Your task to perform on an android device: Show the shopping cart on amazon.com. Add logitech g pro to the cart on amazon.com Image 0: 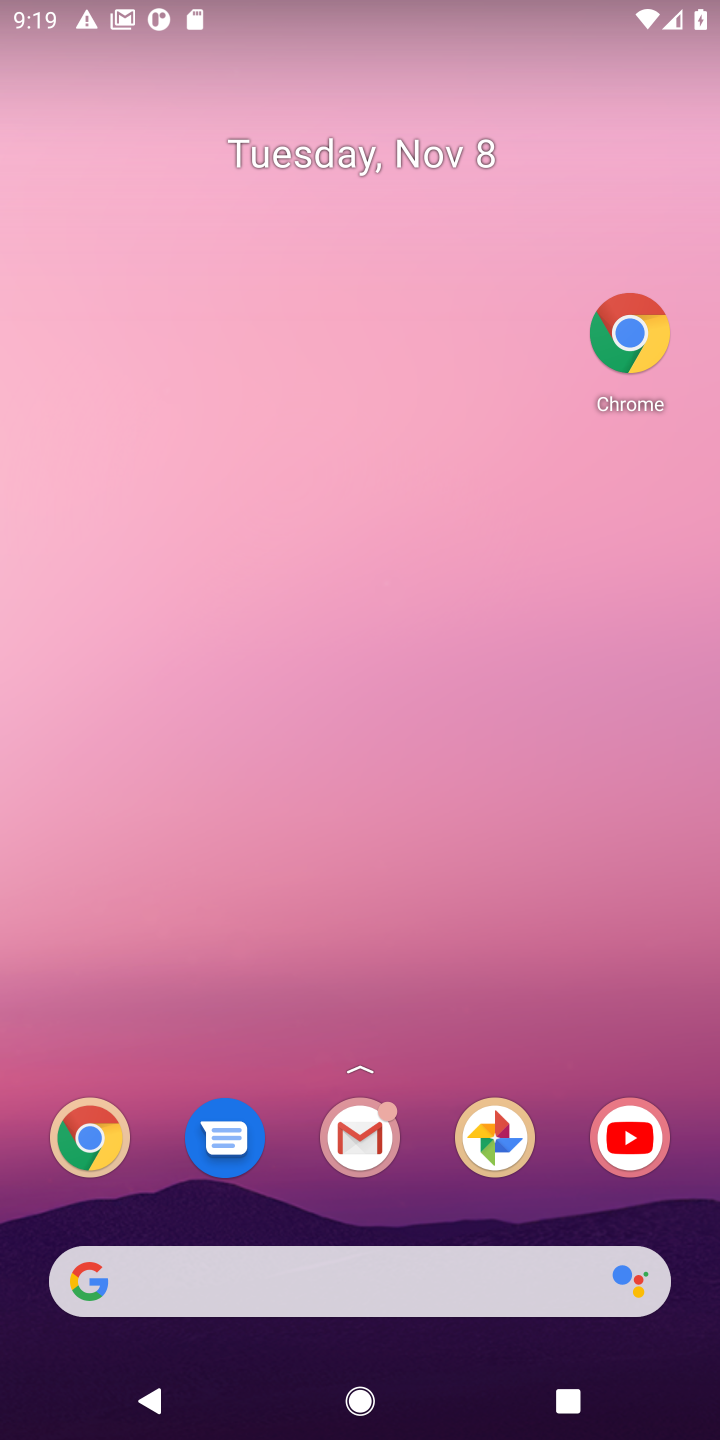
Step 0: drag from (232, 1089) to (310, 65)
Your task to perform on an android device: Show the shopping cart on amazon.com. Add logitech g pro to the cart on amazon.com Image 1: 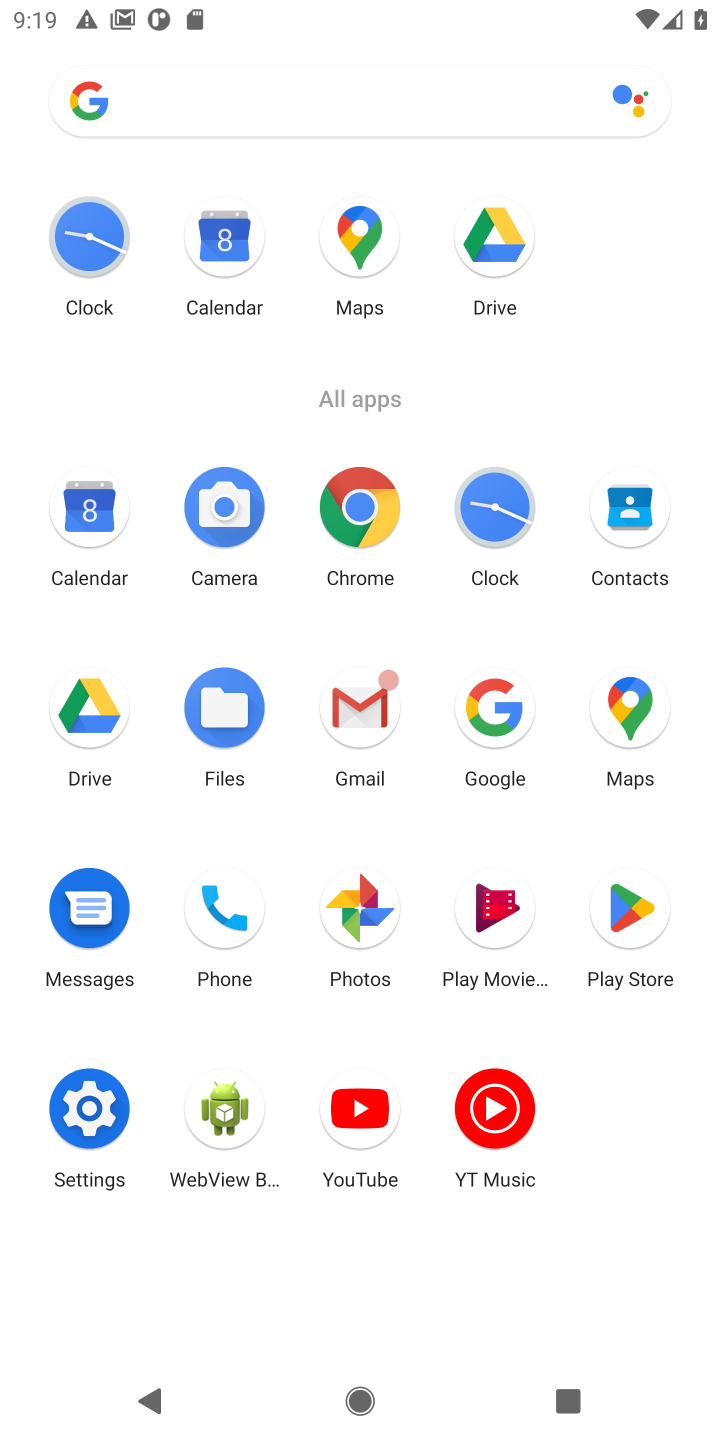
Step 1: click (368, 504)
Your task to perform on an android device: Show the shopping cart on amazon.com. Add logitech g pro to the cart on amazon.com Image 2: 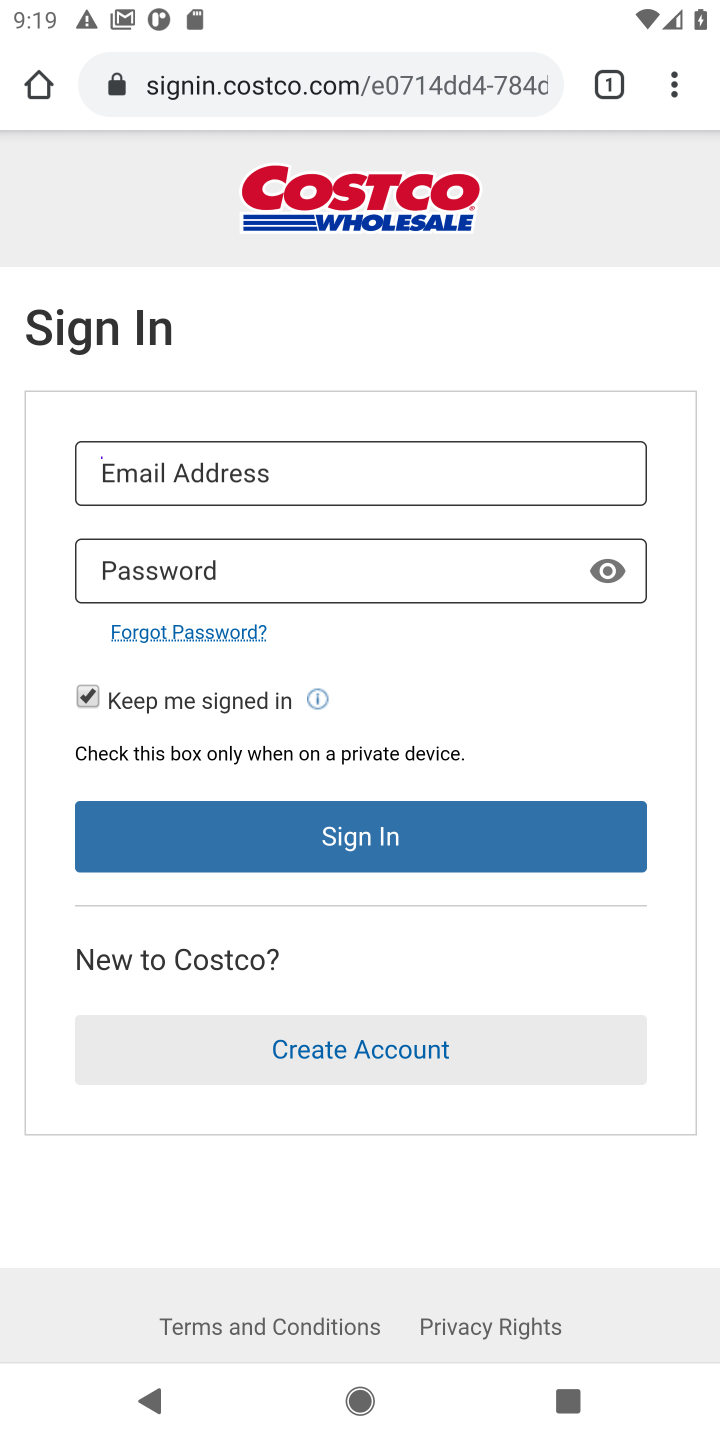
Step 2: click (380, 102)
Your task to perform on an android device: Show the shopping cart on amazon.com. Add logitech g pro to the cart on amazon.com Image 3: 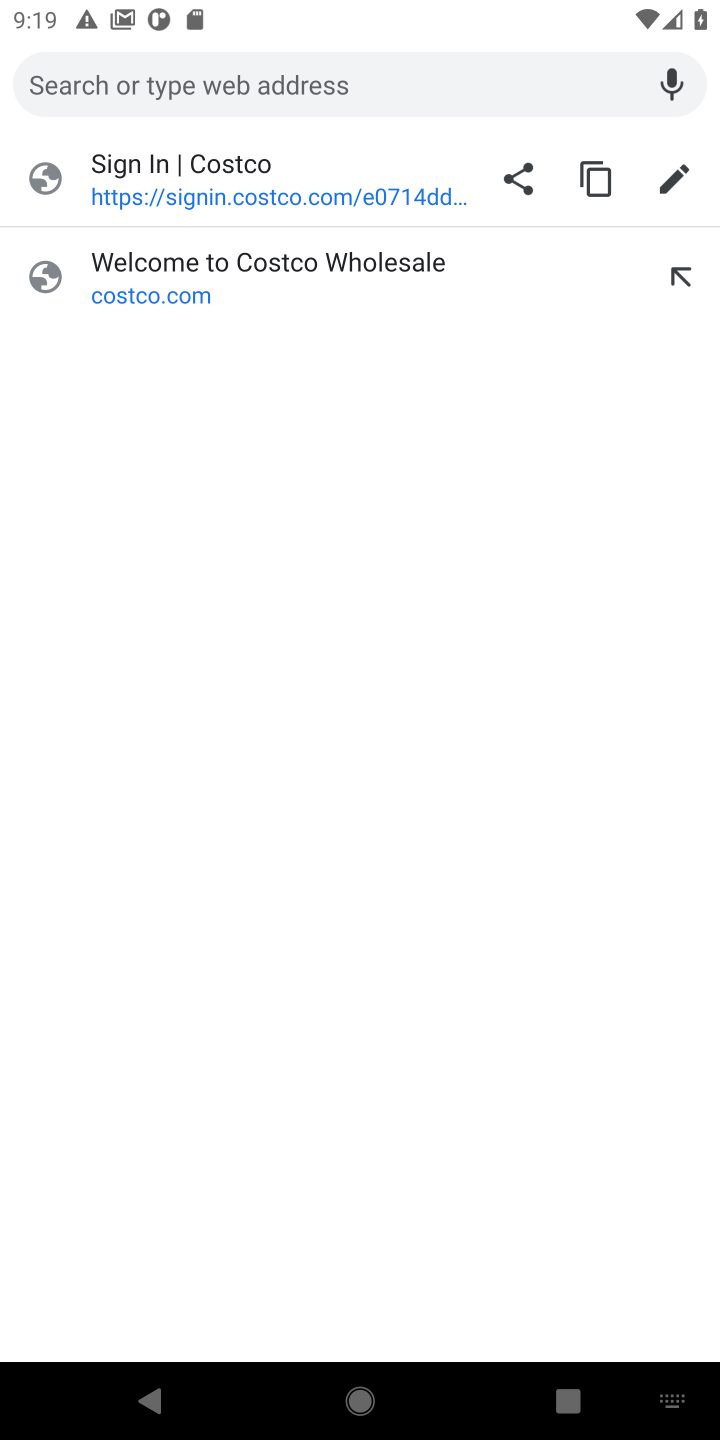
Step 3: type "amazon.com"
Your task to perform on an android device: Show the shopping cart on amazon.com. Add logitech g pro to the cart on amazon.com Image 4: 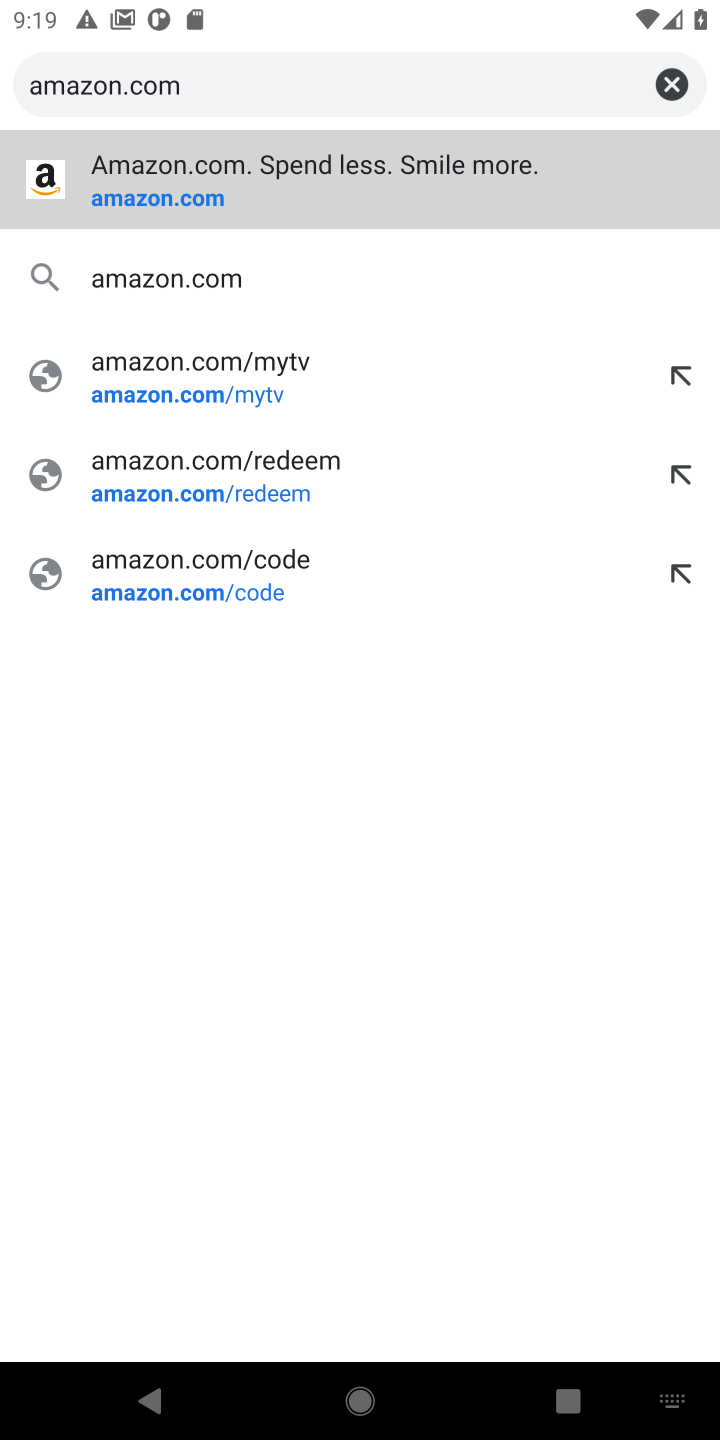
Step 4: press enter
Your task to perform on an android device: Show the shopping cart on amazon.com. Add logitech g pro to the cart on amazon.com Image 5: 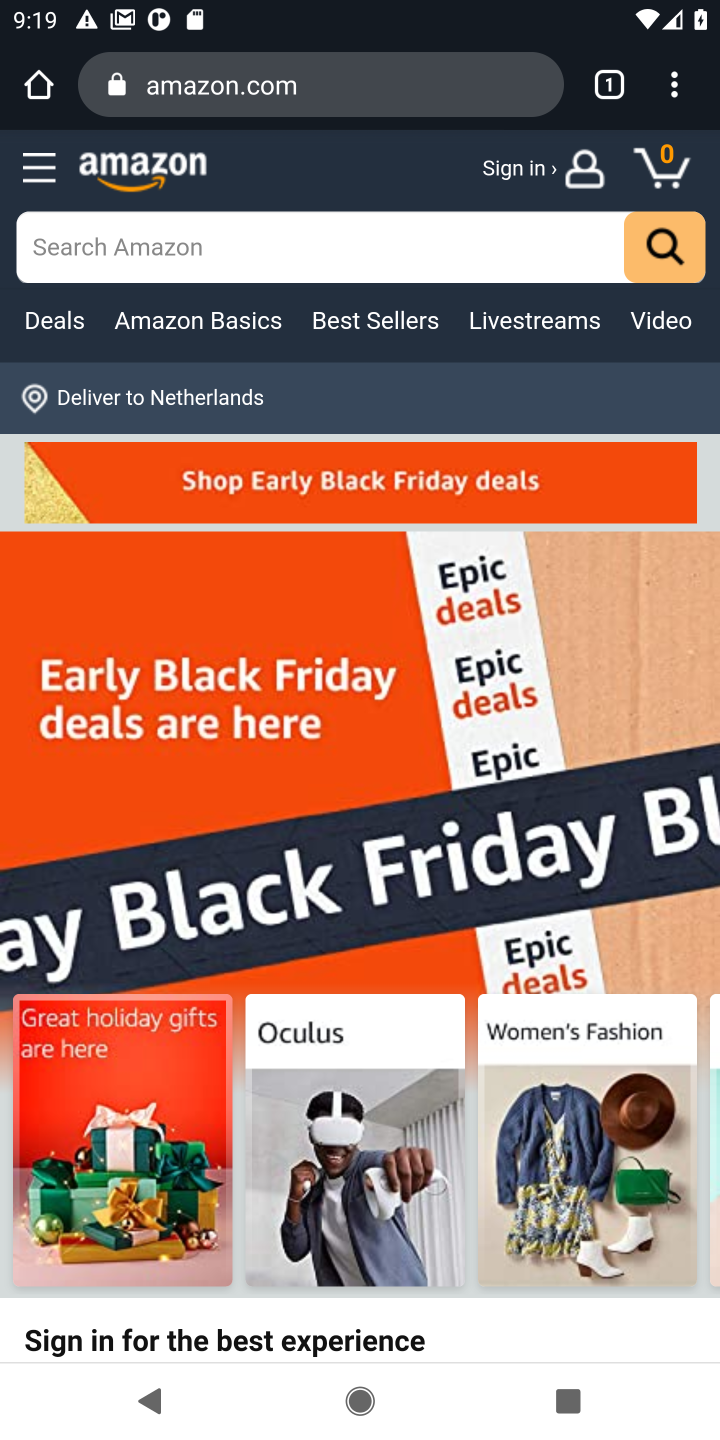
Step 5: click (469, 249)
Your task to perform on an android device: Show the shopping cart on amazon.com. Add logitech g pro to the cart on amazon.com Image 6: 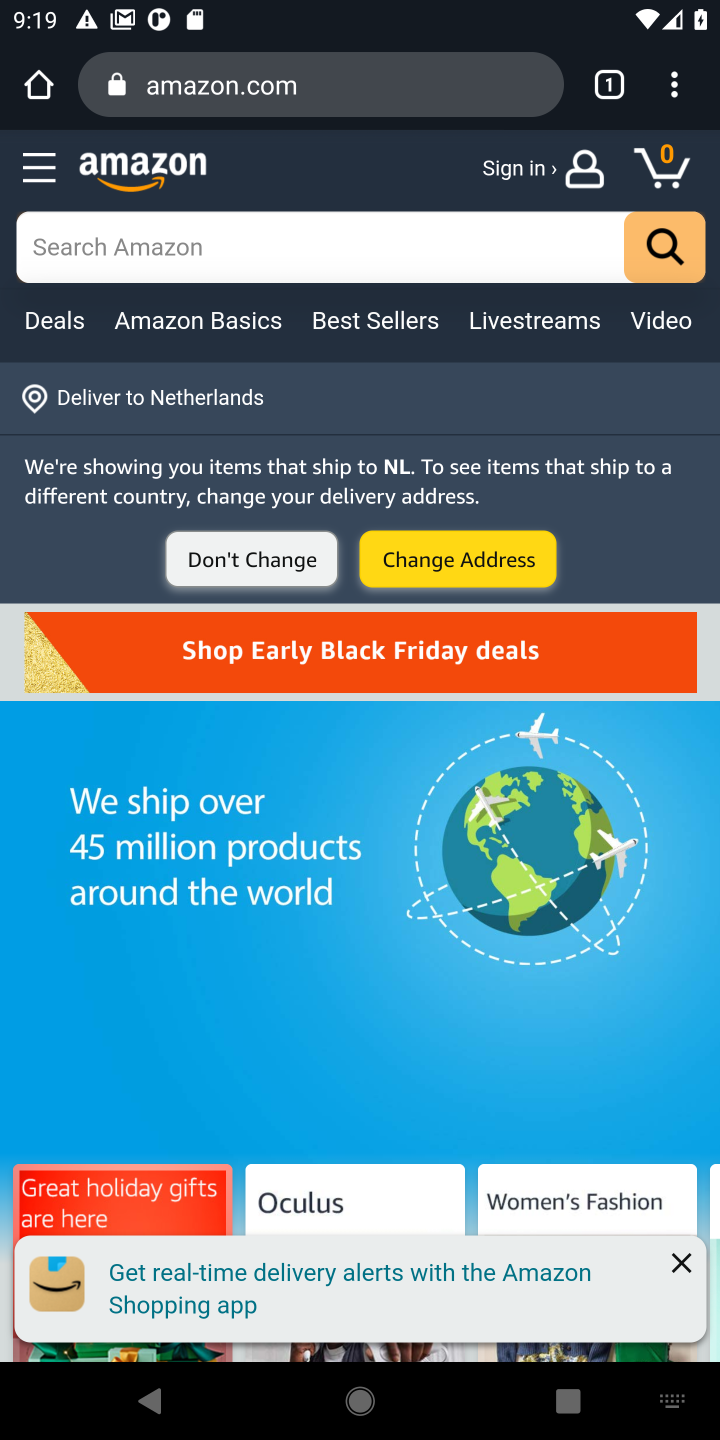
Step 6: press enter
Your task to perform on an android device: Show the shopping cart on amazon.com. Add logitech g pro to the cart on amazon.com Image 7: 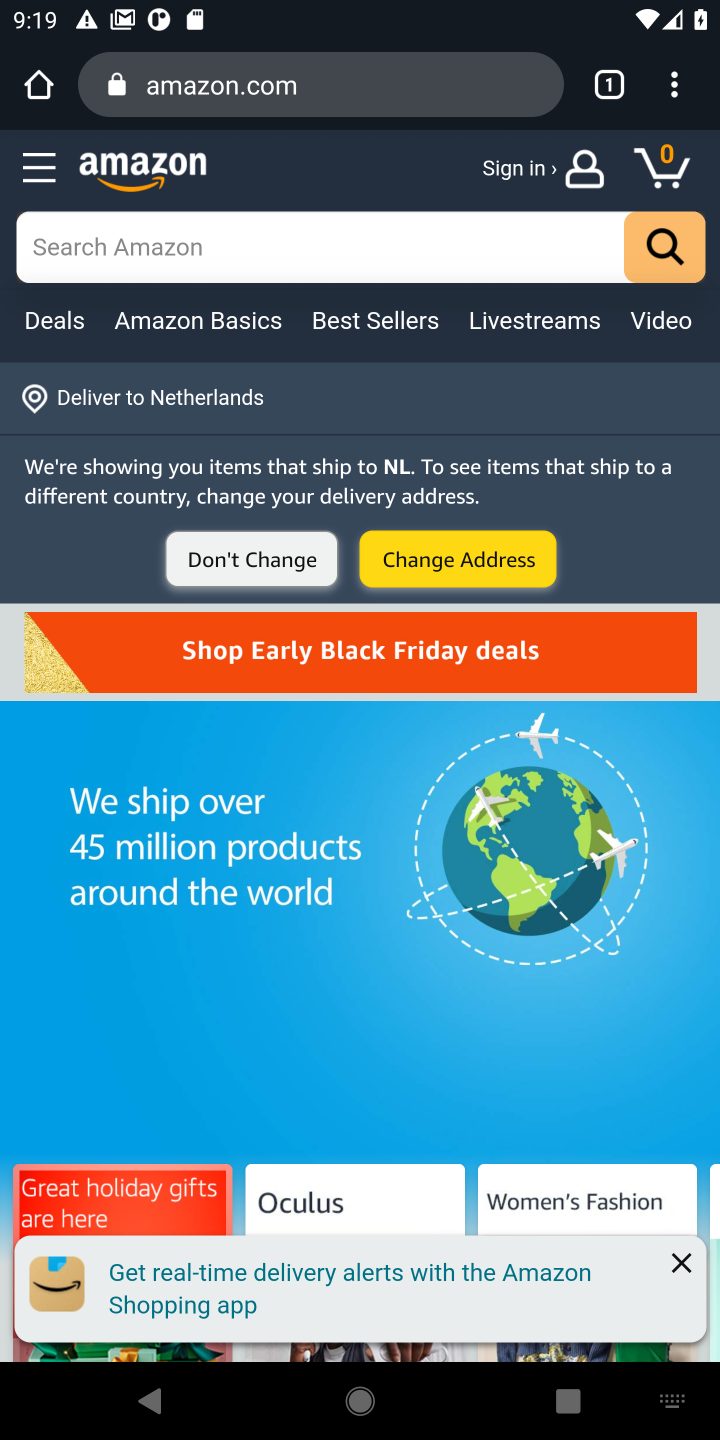
Step 7: type "logitech g pro"
Your task to perform on an android device: Show the shopping cart on amazon.com. Add logitech g pro to the cart on amazon.com Image 8: 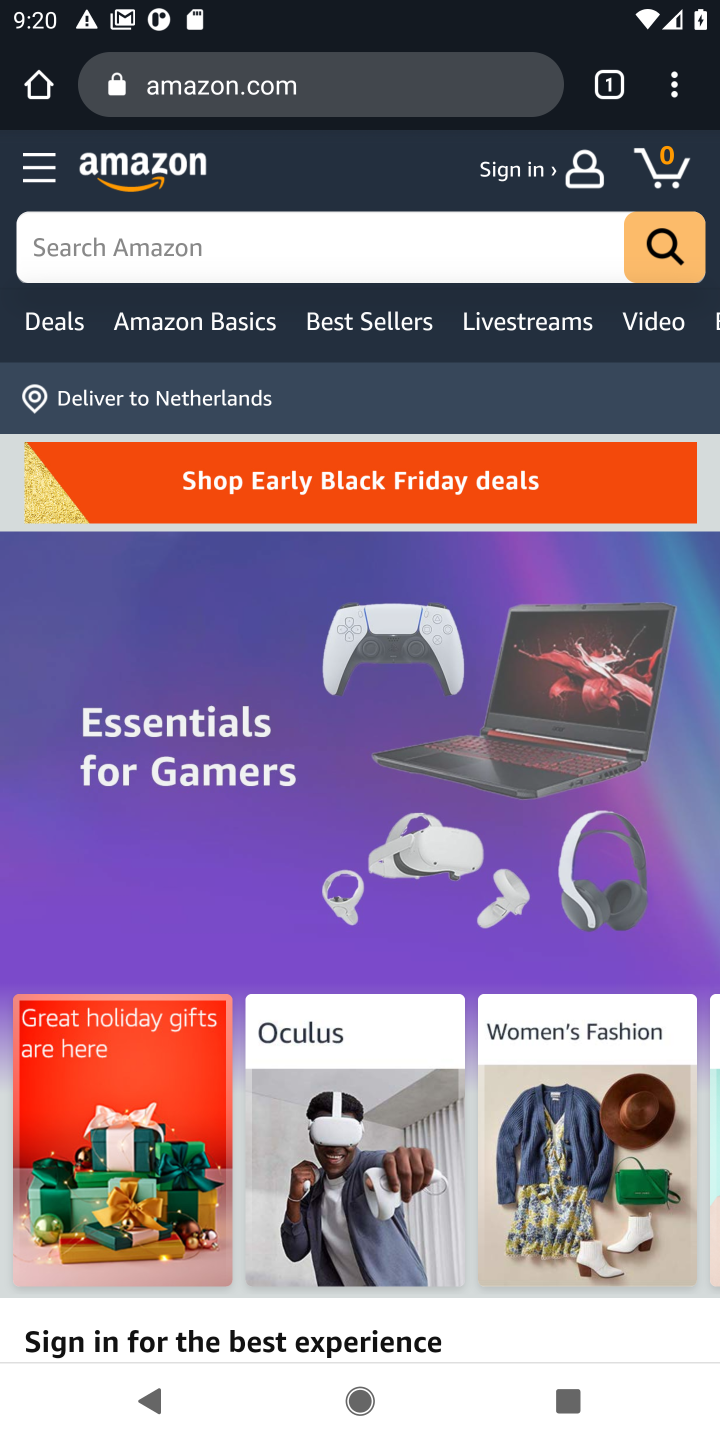
Step 8: click (355, 254)
Your task to perform on an android device: Show the shopping cart on amazon.com. Add logitech g pro to the cart on amazon.com Image 9: 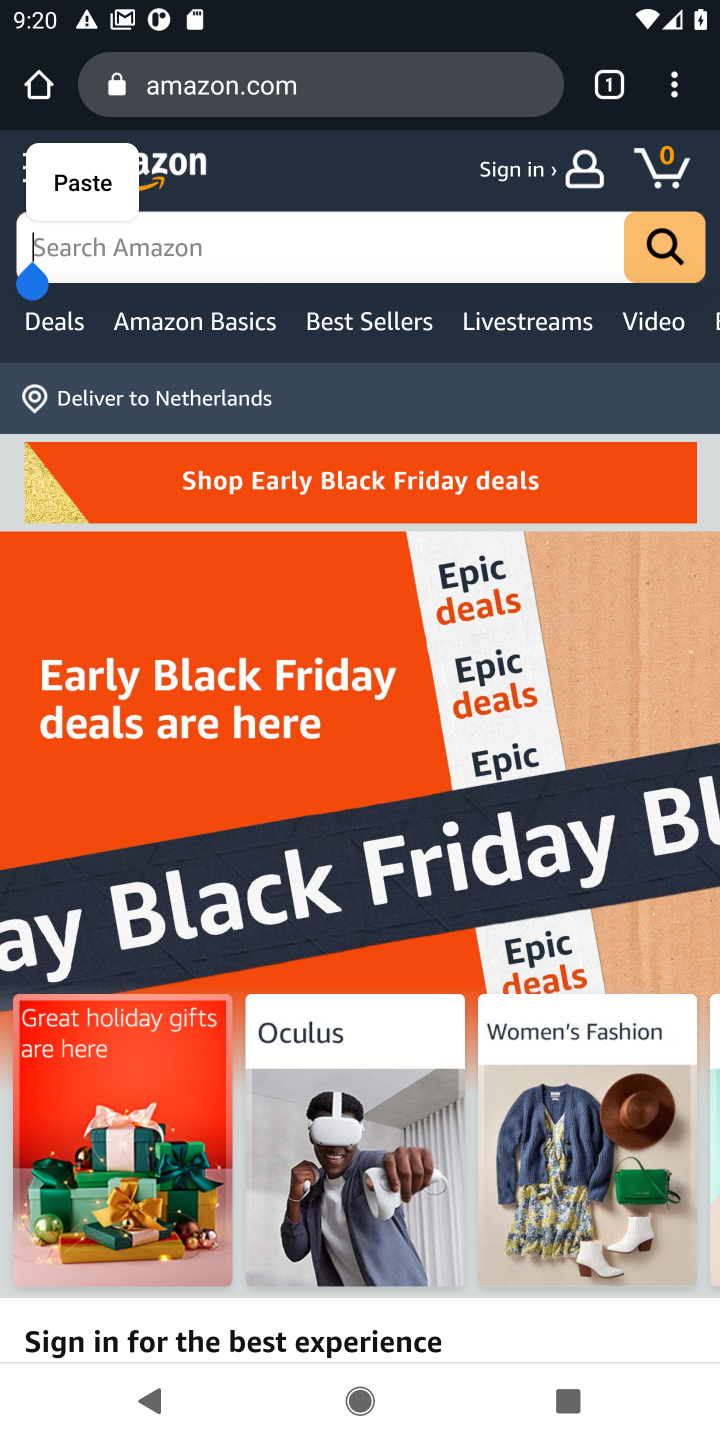
Step 9: type "Add logitech g pro"
Your task to perform on an android device: Show the shopping cart on amazon.com. Add logitech g pro to the cart on amazon.com Image 10: 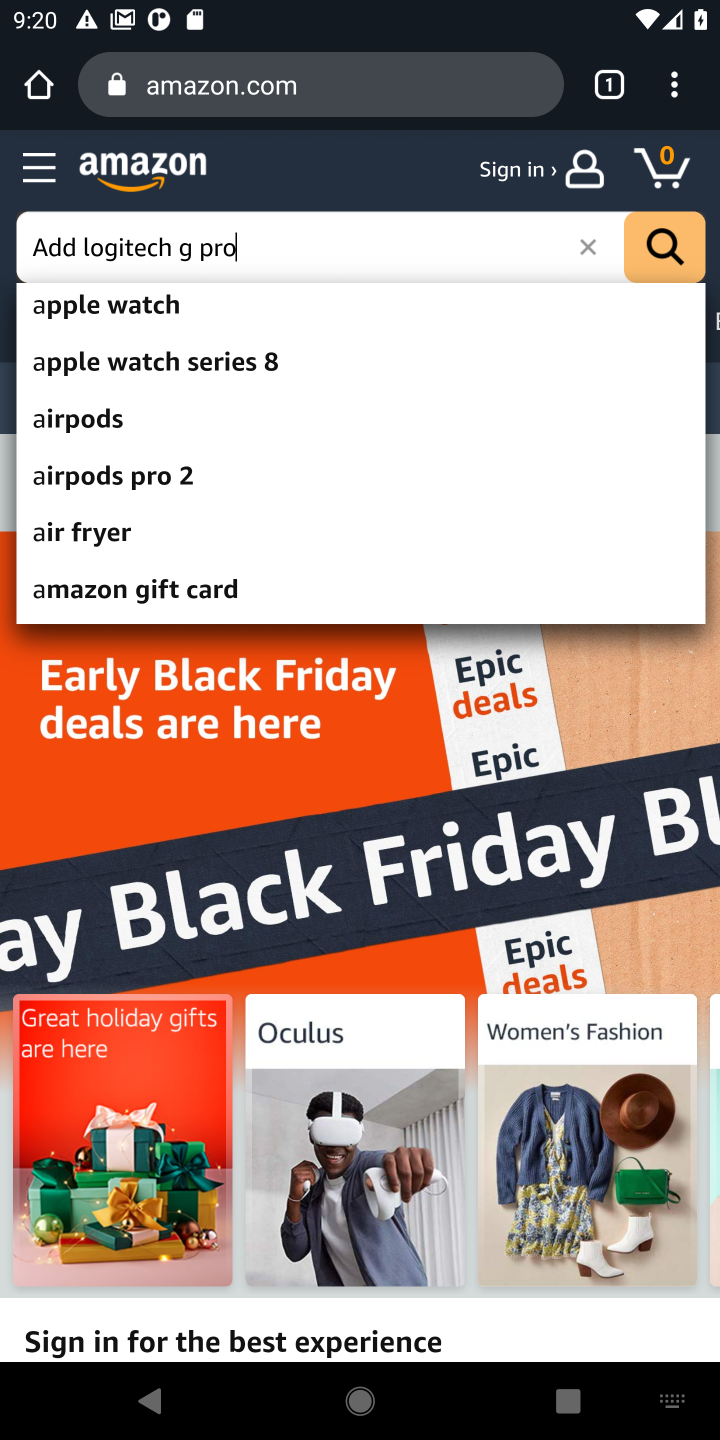
Step 10: press enter
Your task to perform on an android device: Show the shopping cart on amazon.com. Add logitech g pro to the cart on amazon.com Image 11: 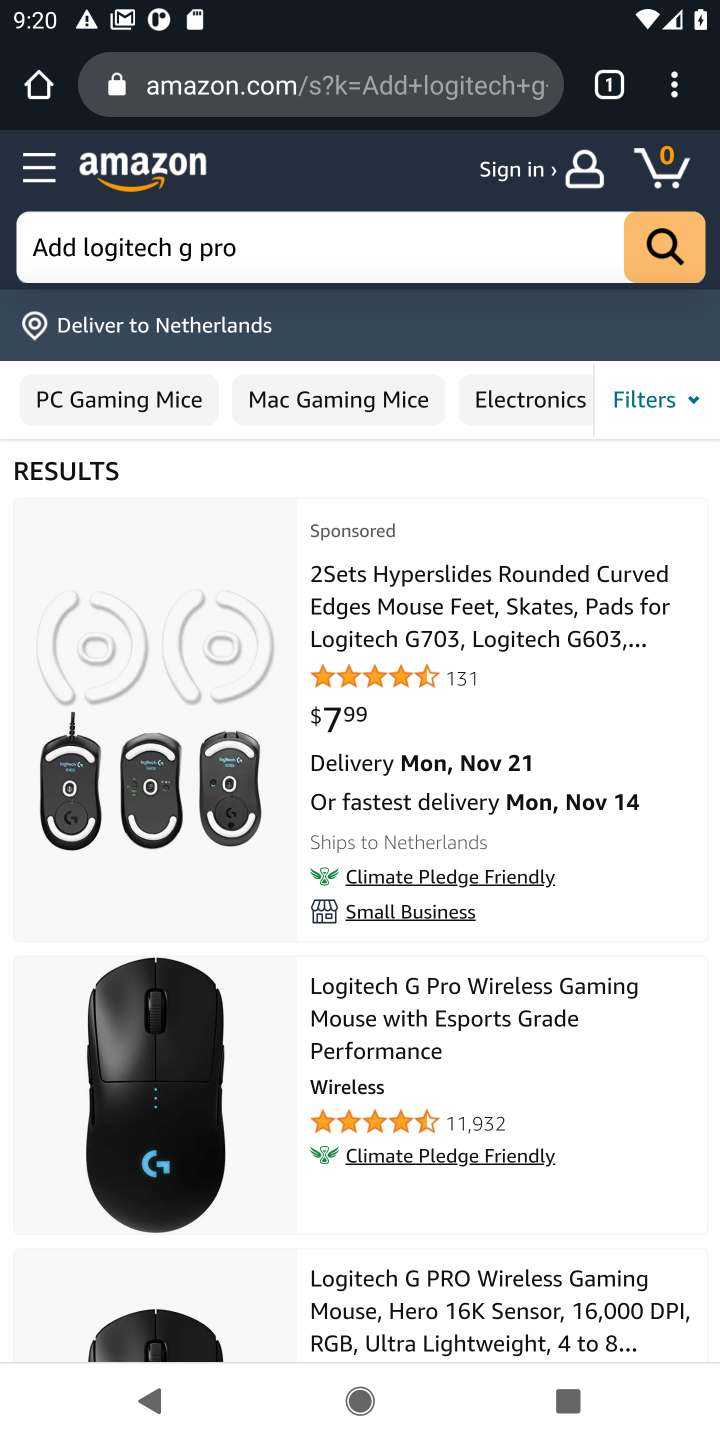
Step 11: click (395, 609)
Your task to perform on an android device: Show the shopping cart on amazon.com. Add logitech g pro to the cart on amazon.com Image 12: 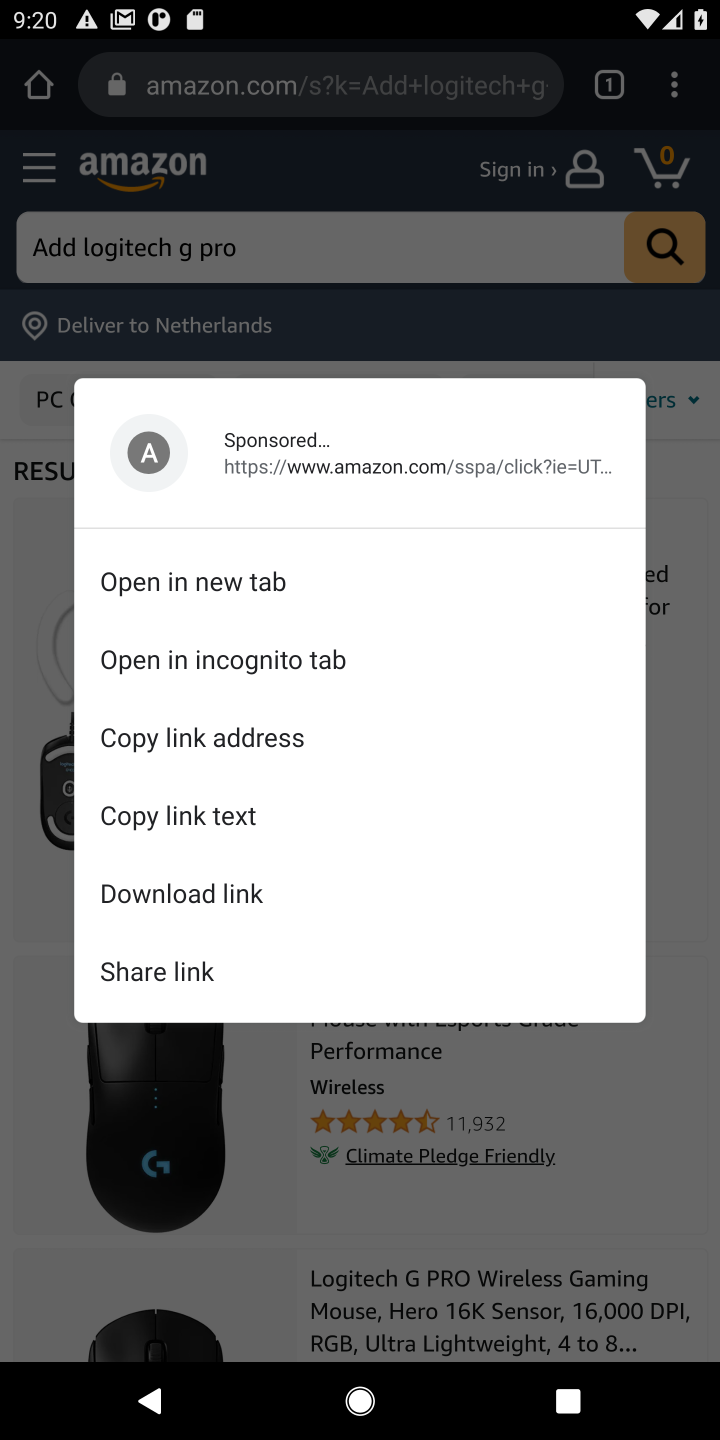
Step 12: click (292, 1109)
Your task to perform on an android device: Show the shopping cart on amazon.com. Add logitech g pro to the cart on amazon.com Image 13: 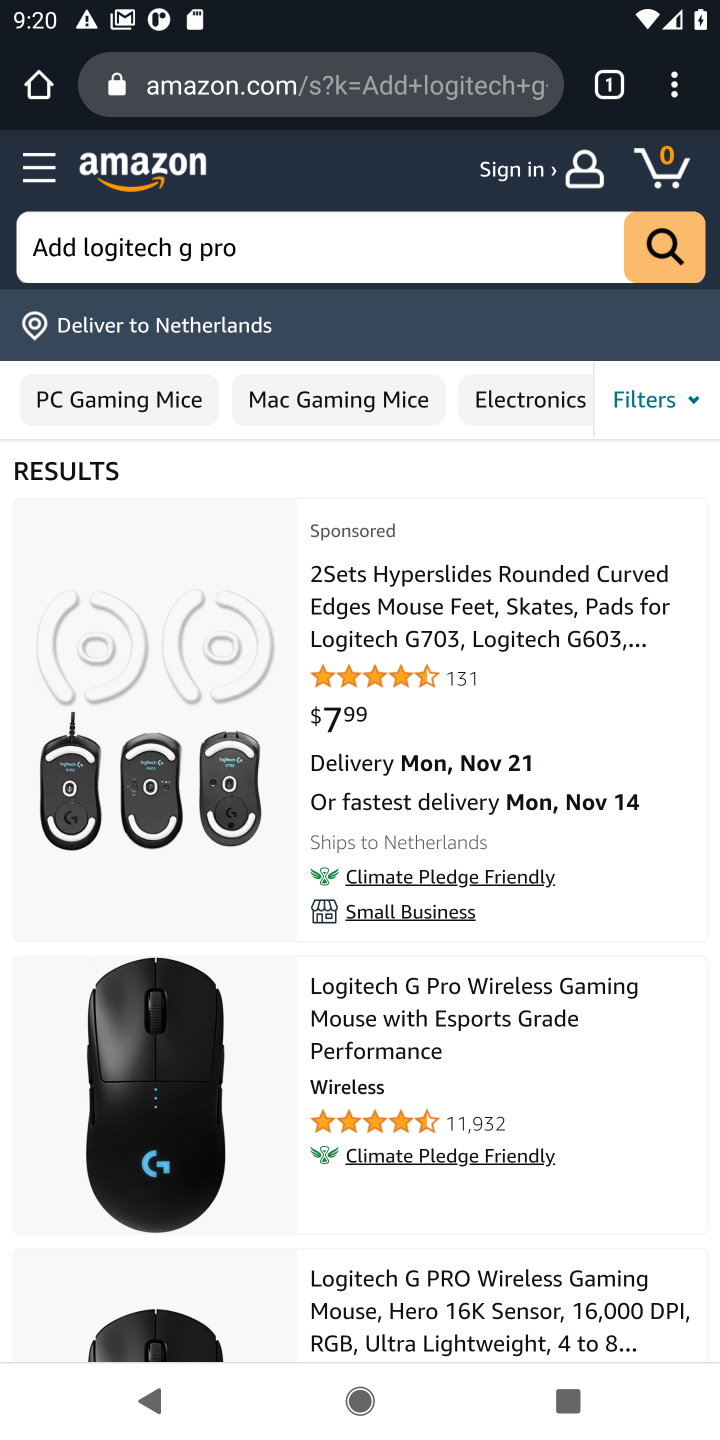
Step 13: click (405, 591)
Your task to perform on an android device: Show the shopping cart on amazon.com. Add logitech g pro to the cart on amazon.com Image 14: 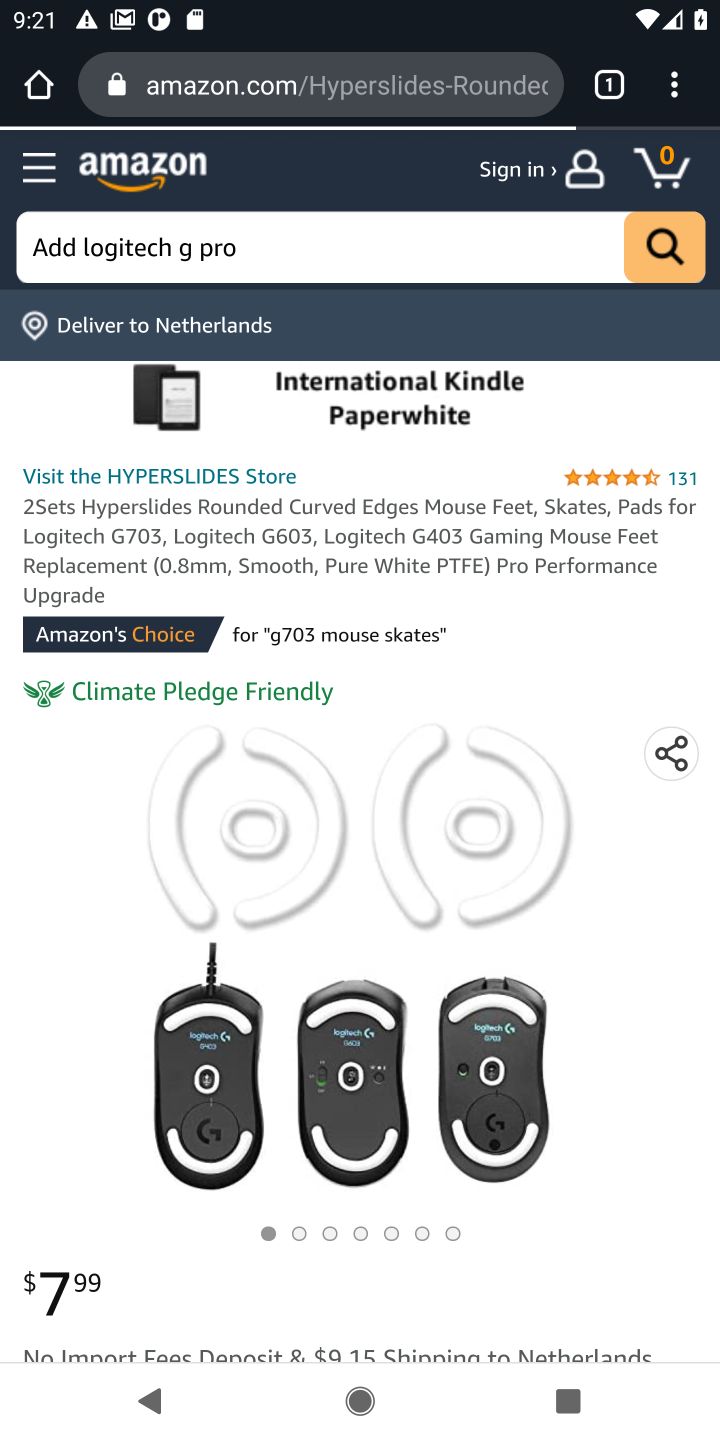
Step 14: drag from (409, 713) to (403, 522)
Your task to perform on an android device: Show the shopping cart on amazon.com. Add logitech g pro to the cart on amazon.com Image 15: 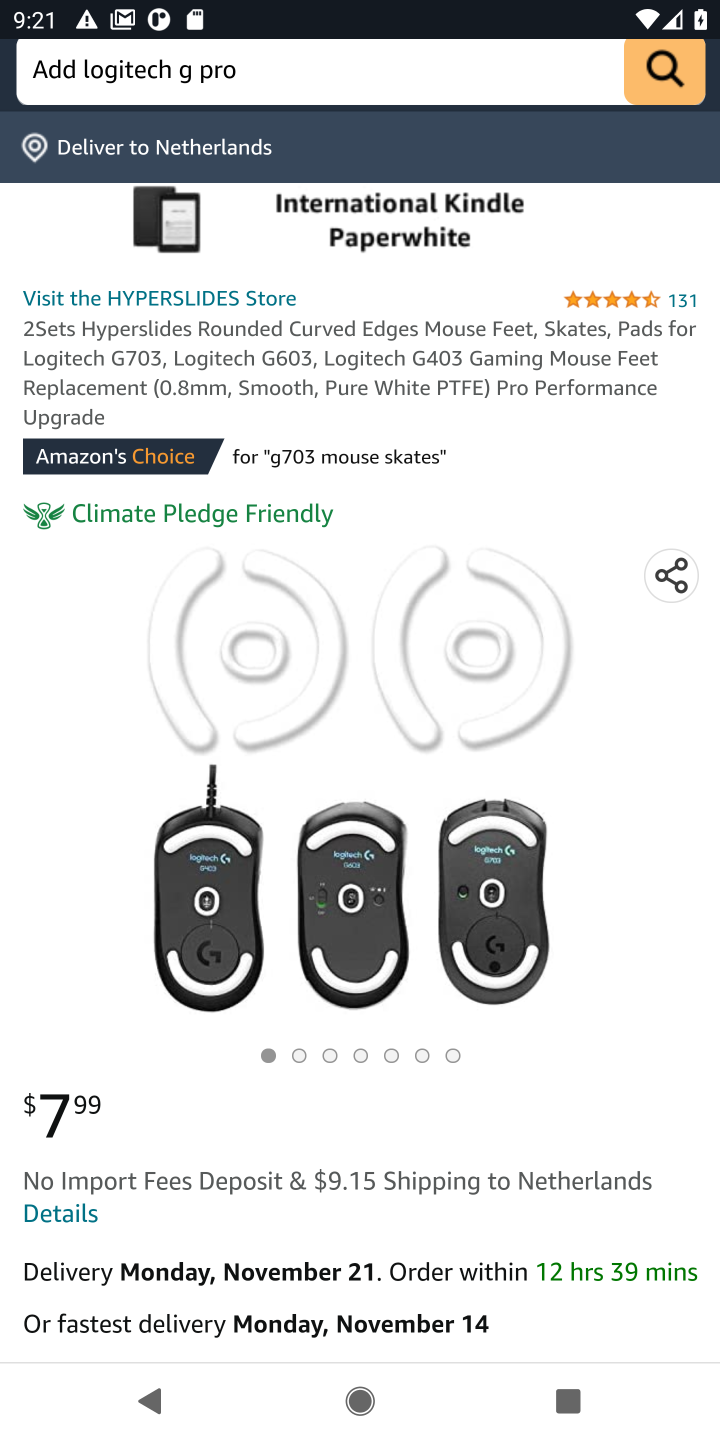
Step 15: drag from (483, 1119) to (508, 544)
Your task to perform on an android device: Show the shopping cart on amazon.com. Add logitech g pro to the cart on amazon.com Image 16: 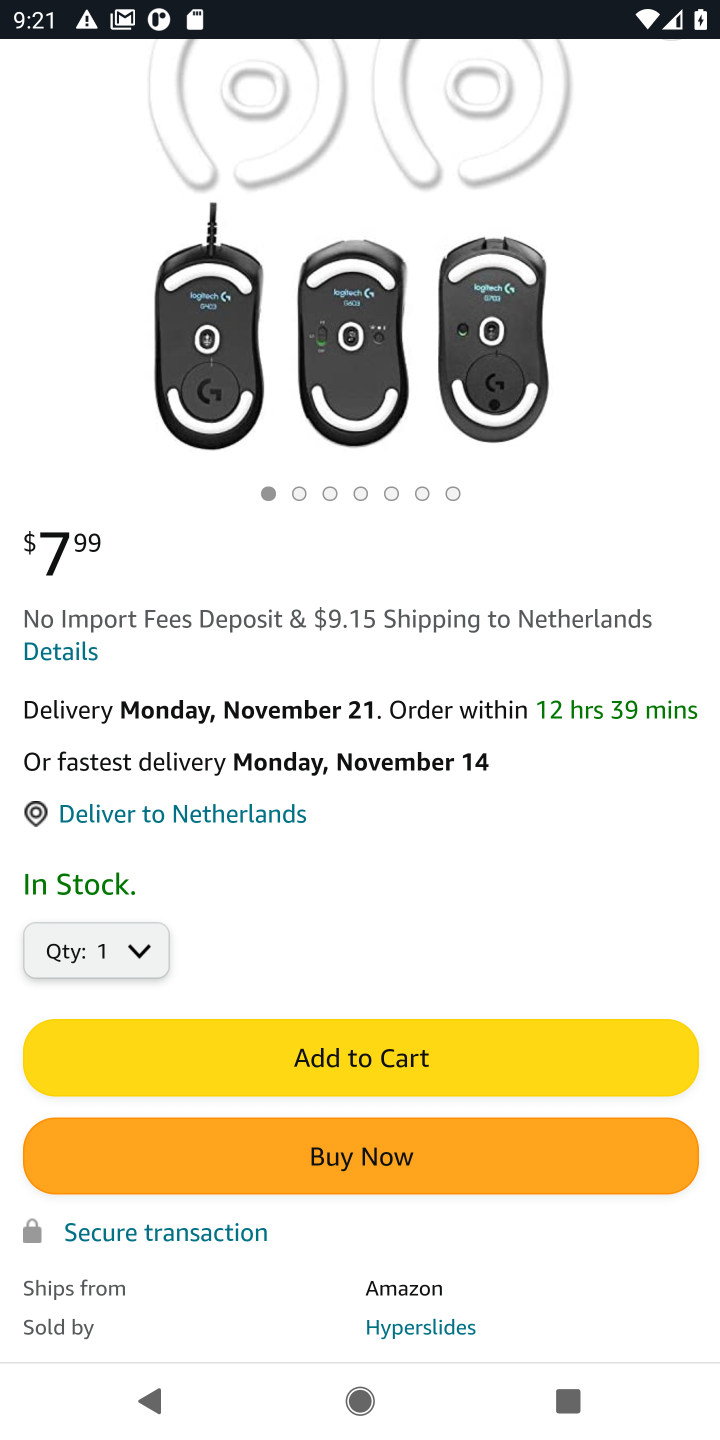
Step 16: click (398, 1053)
Your task to perform on an android device: Show the shopping cart on amazon.com. Add logitech g pro to the cart on amazon.com Image 17: 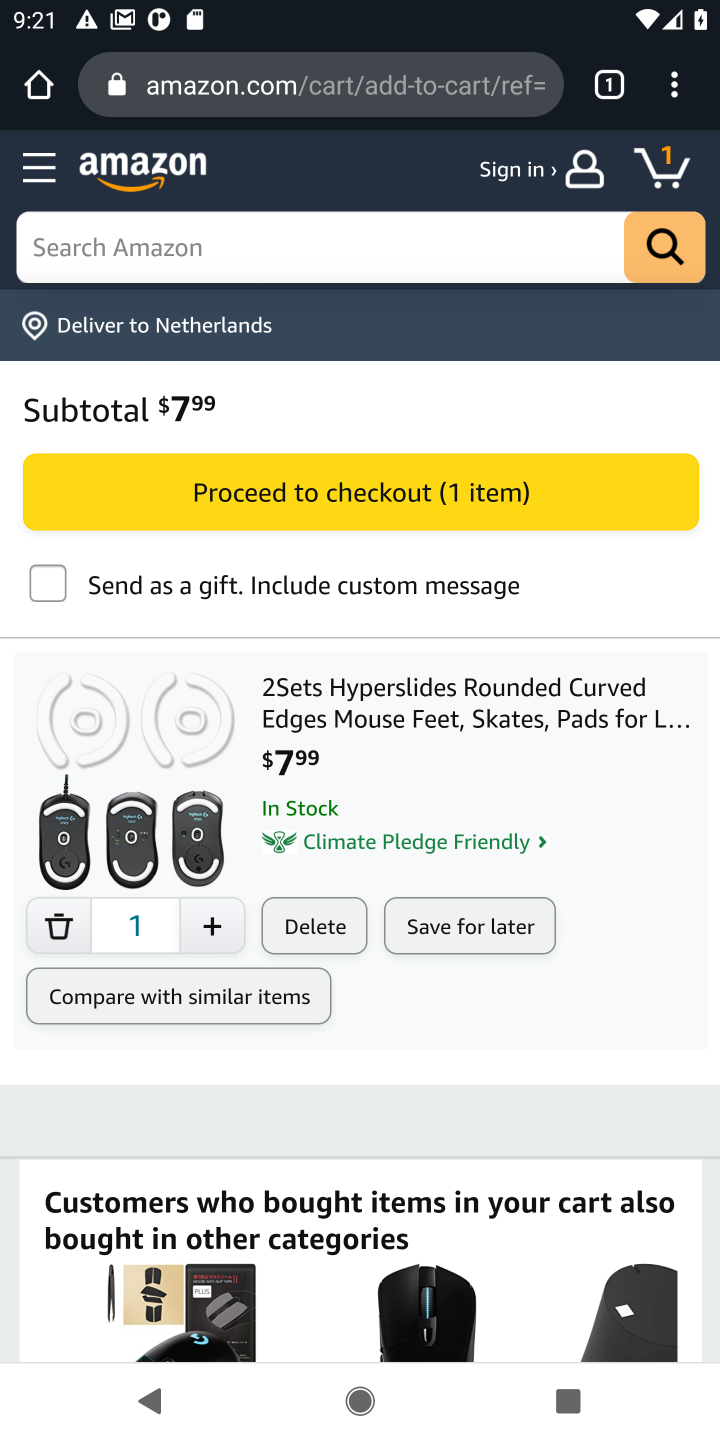
Step 17: task complete